Your task to perform on an android device: What is the news today? Image 0: 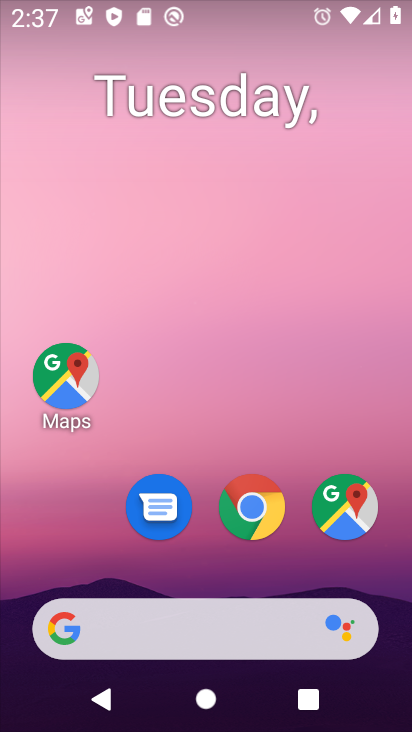
Step 0: drag from (272, 556) to (288, 172)
Your task to perform on an android device: What is the news today? Image 1: 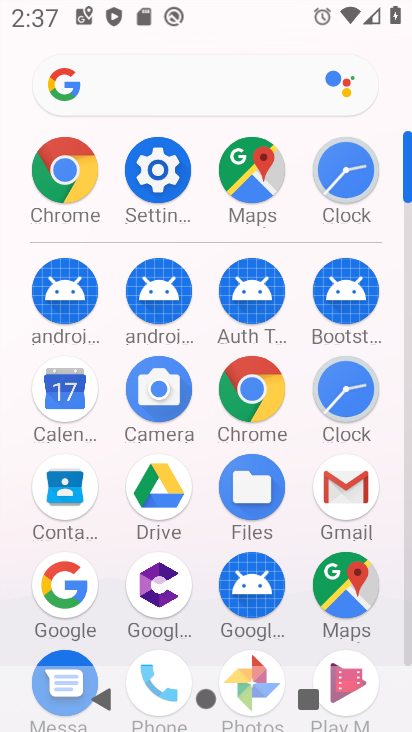
Step 1: click (246, 386)
Your task to perform on an android device: What is the news today? Image 2: 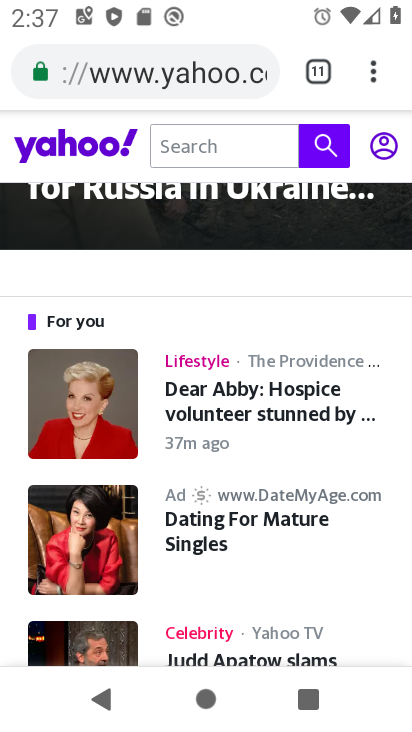
Step 2: click (359, 73)
Your task to perform on an android device: What is the news today? Image 3: 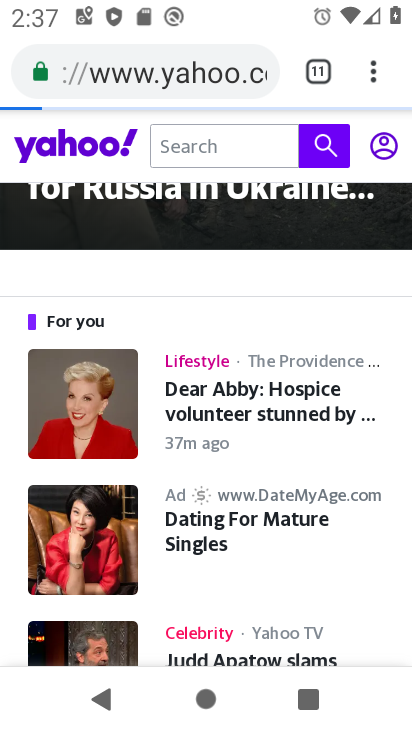
Step 3: click (364, 74)
Your task to perform on an android device: What is the news today? Image 4: 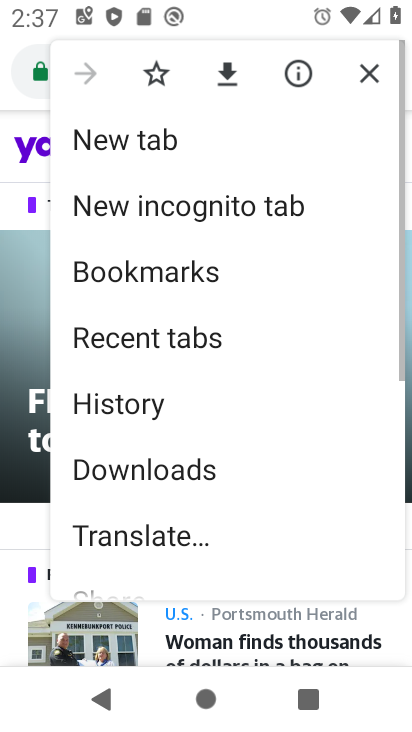
Step 4: click (160, 126)
Your task to perform on an android device: What is the news today? Image 5: 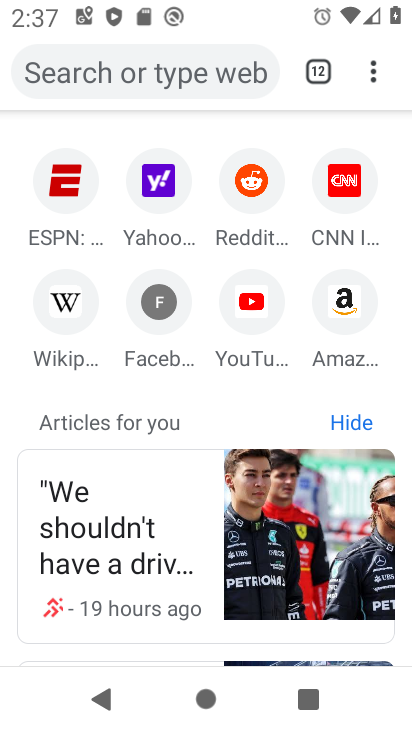
Step 5: click (135, 66)
Your task to perform on an android device: What is the news today? Image 6: 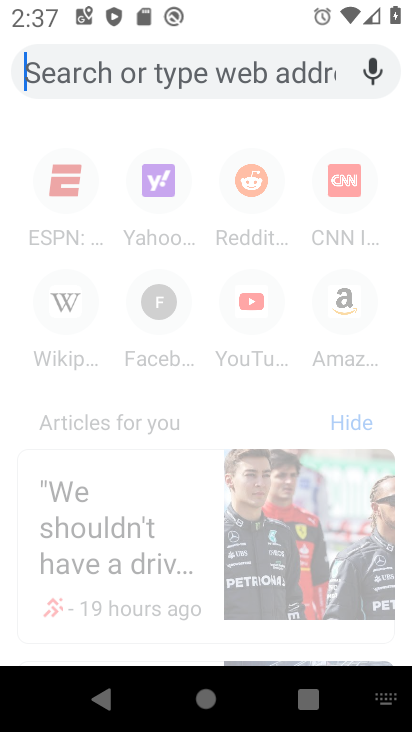
Step 6: type "What is the news today?"
Your task to perform on an android device: What is the news today? Image 7: 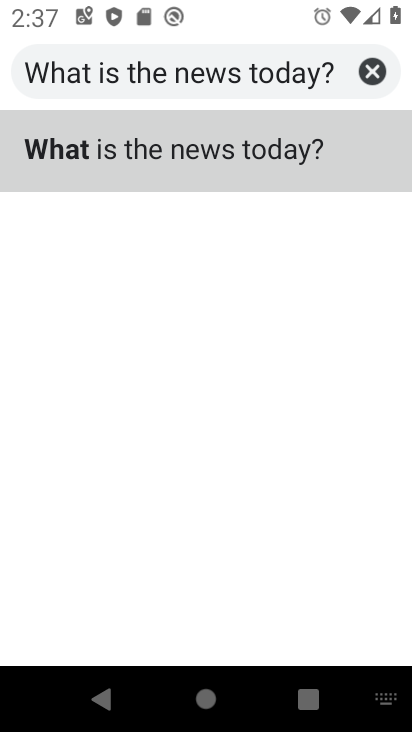
Step 7: click (271, 151)
Your task to perform on an android device: What is the news today? Image 8: 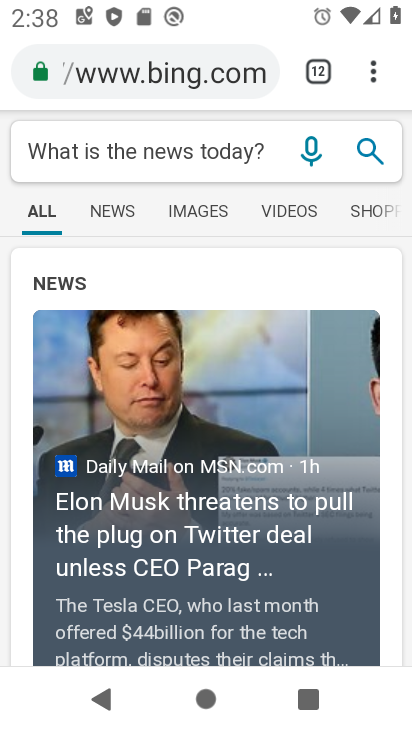
Step 8: task complete